Your task to perform on an android device: Look up the best rated 5.1 home theater speakers on Walmart. Image 0: 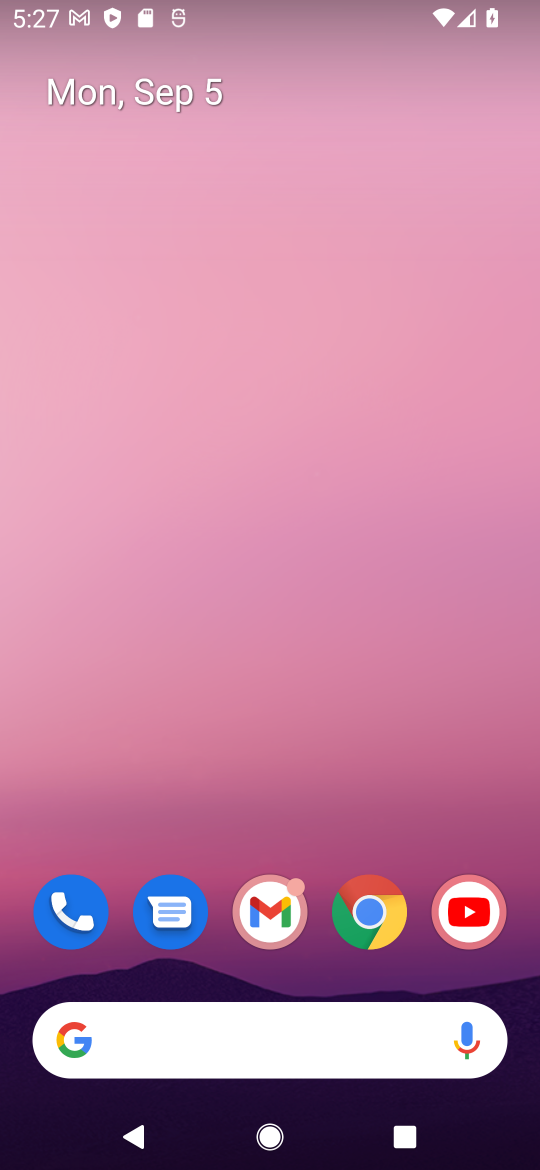
Step 0: click (358, 917)
Your task to perform on an android device: Look up the best rated 5.1 home theater speakers on Walmart. Image 1: 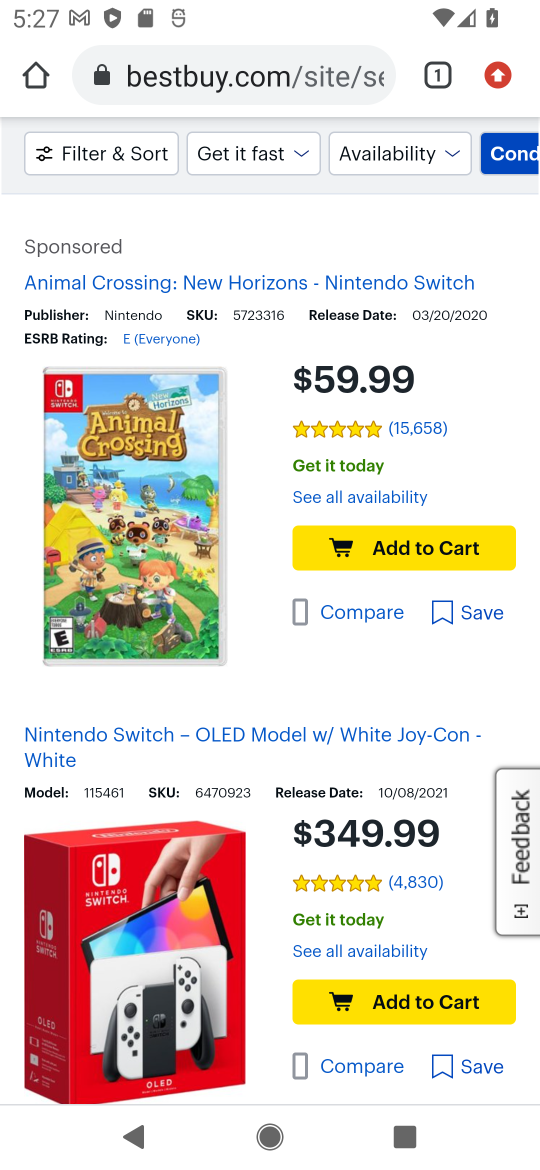
Step 1: click (243, 73)
Your task to perform on an android device: Look up the best rated 5.1 home theater speakers on Walmart. Image 2: 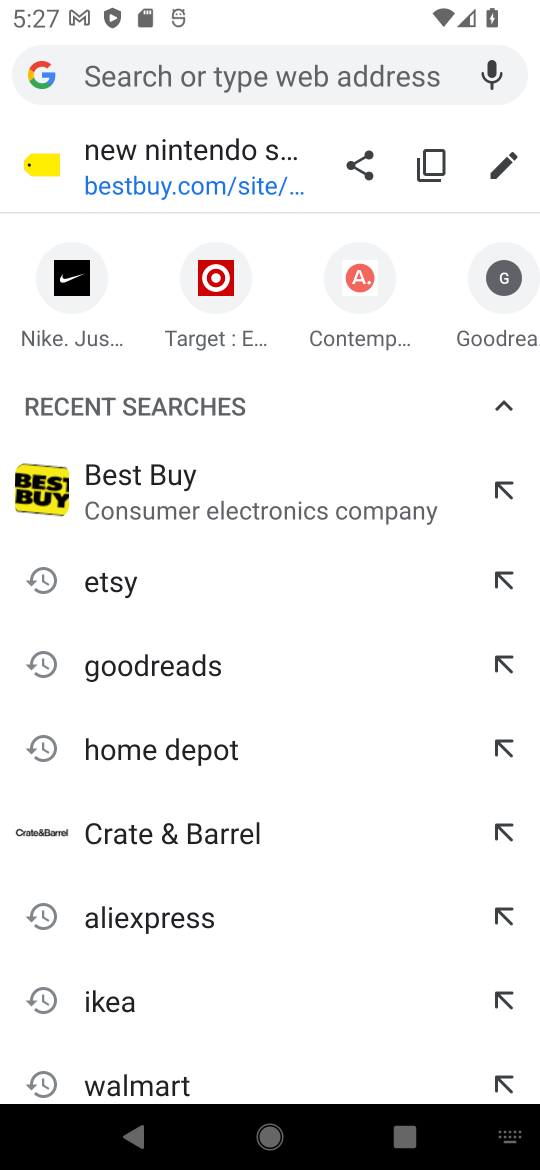
Step 2: type "walmart"
Your task to perform on an android device: Look up the best rated 5.1 home theater speakers on Walmart. Image 3: 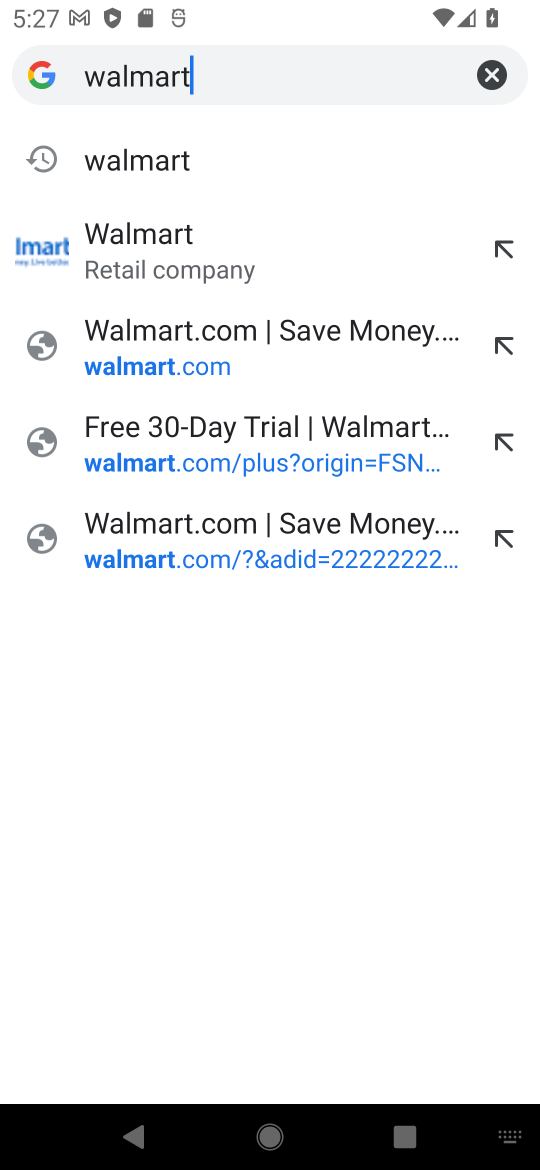
Step 3: press enter
Your task to perform on an android device: Look up the best rated 5.1 home theater speakers on Walmart. Image 4: 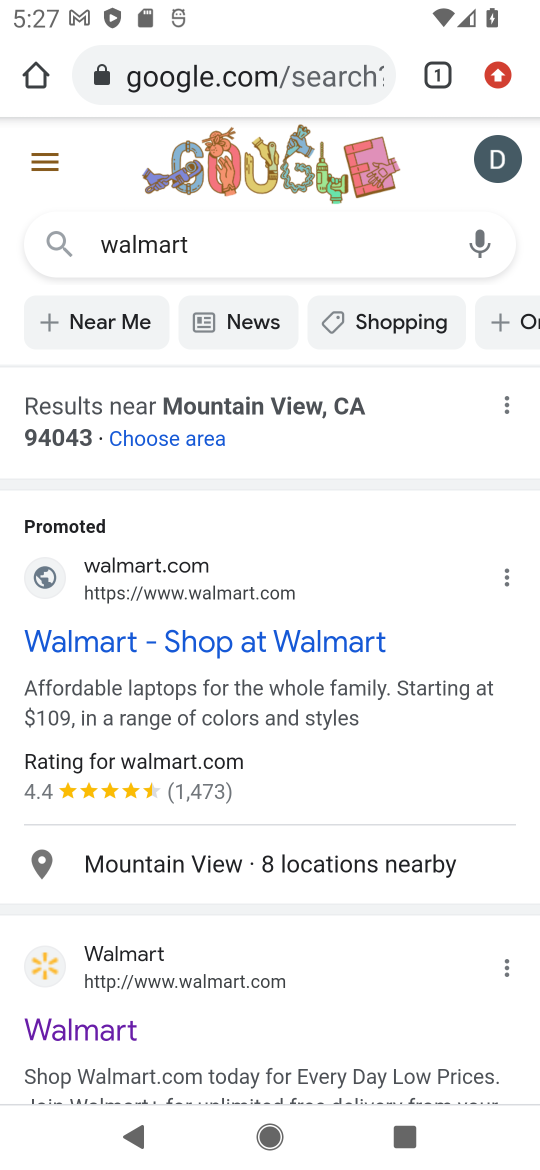
Step 4: click (146, 646)
Your task to perform on an android device: Look up the best rated 5.1 home theater speakers on Walmart. Image 5: 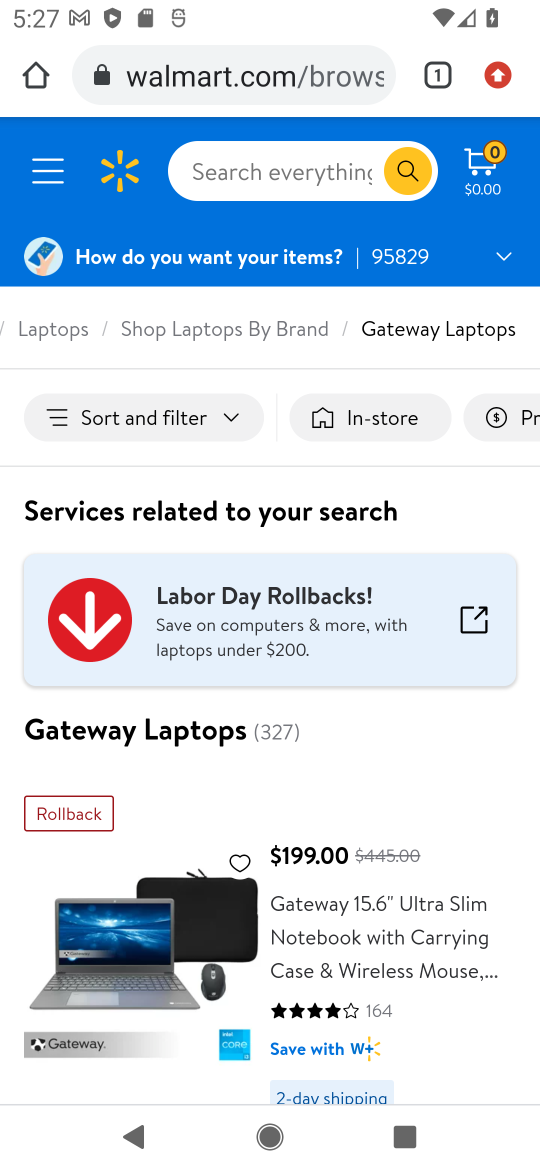
Step 5: click (283, 166)
Your task to perform on an android device: Look up the best rated 5.1 home theater speakers on Walmart. Image 6: 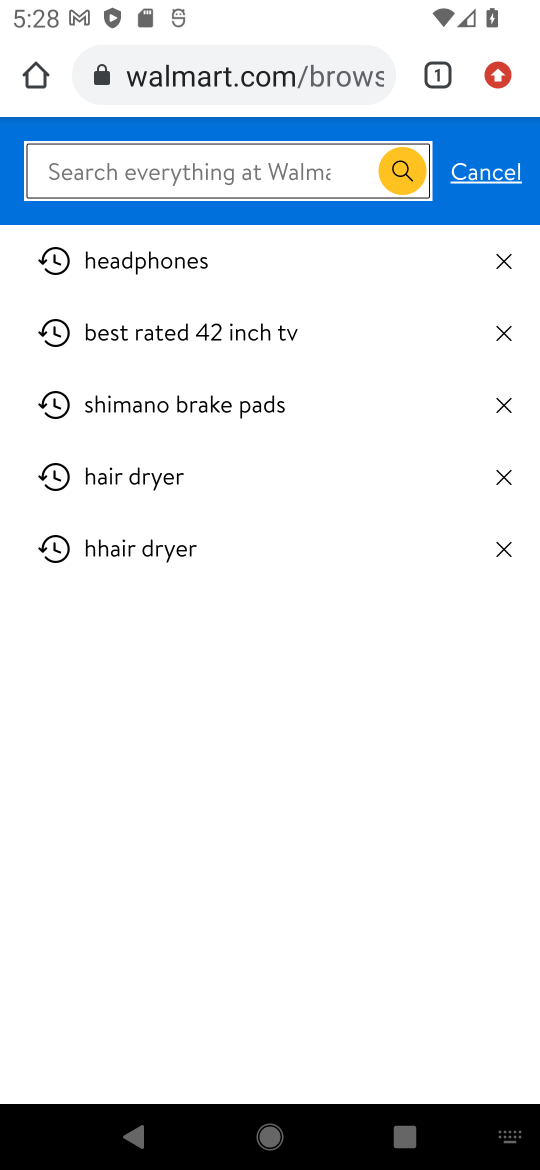
Step 6: click (197, 166)
Your task to perform on an android device: Look up the best rated 5.1 home theater speakers on Walmart. Image 7: 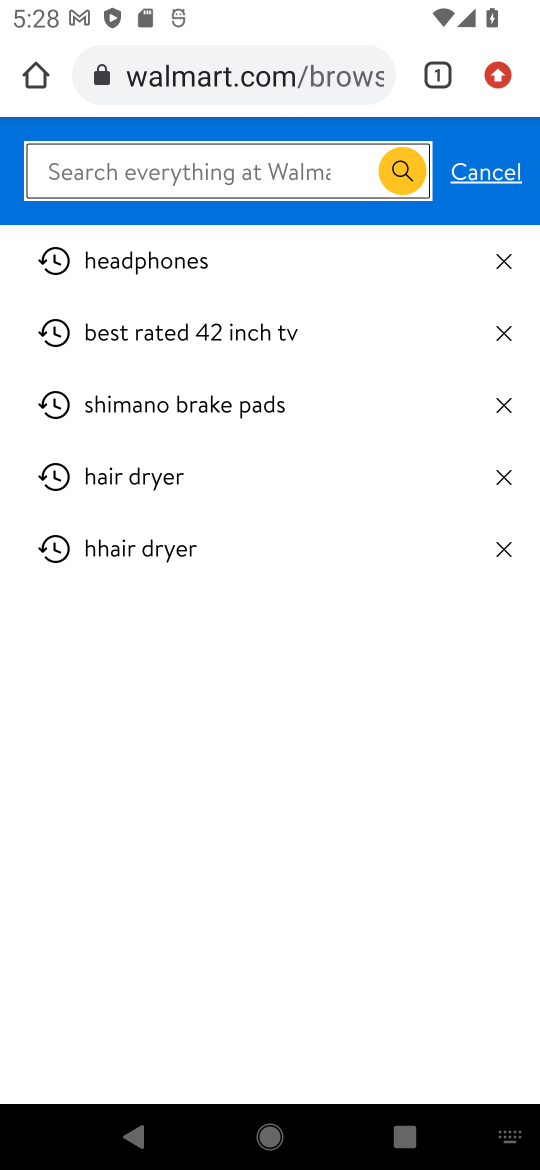
Step 7: type "best rated 5.1 home theater speakers"
Your task to perform on an android device: Look up the best rated 5.1 home theater speakers on Walmart. Image 8: 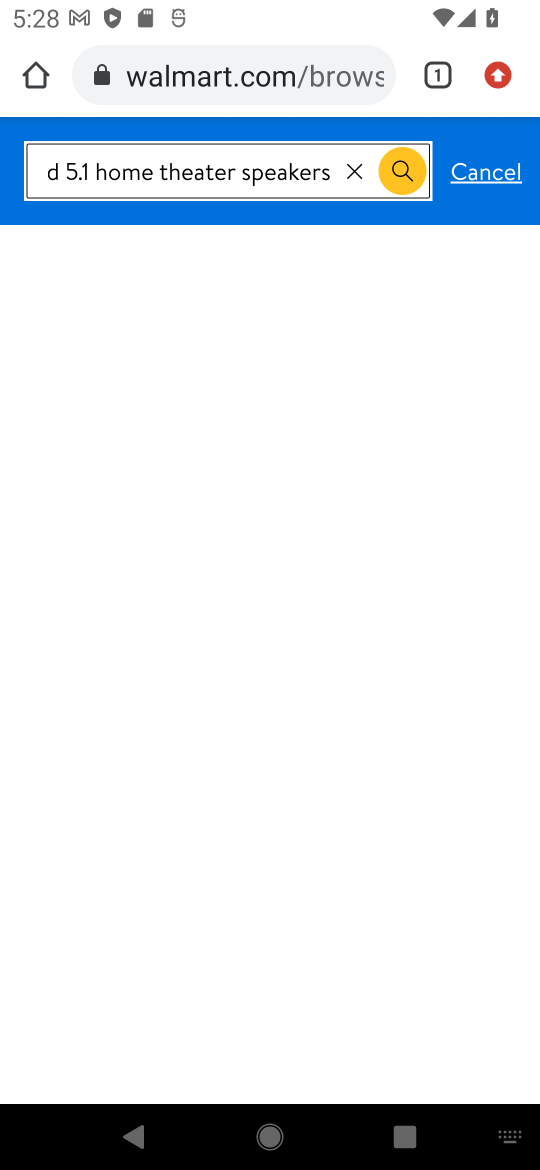
Step 8: press enter
Your task to perform on an android device: Look up the best rated 5.1 home theater speakers on Walmart. Image 9: 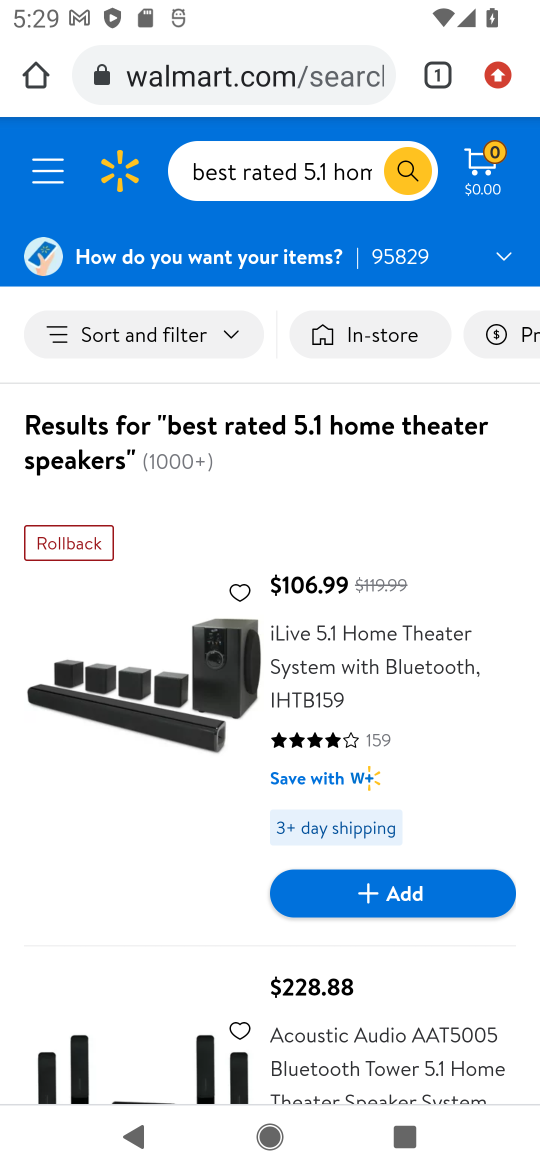
Step 9: click (134, 341)
Your task to perform on an android device: Look up the best rated 5.1 home theater speakers on Walmart. Image 10: 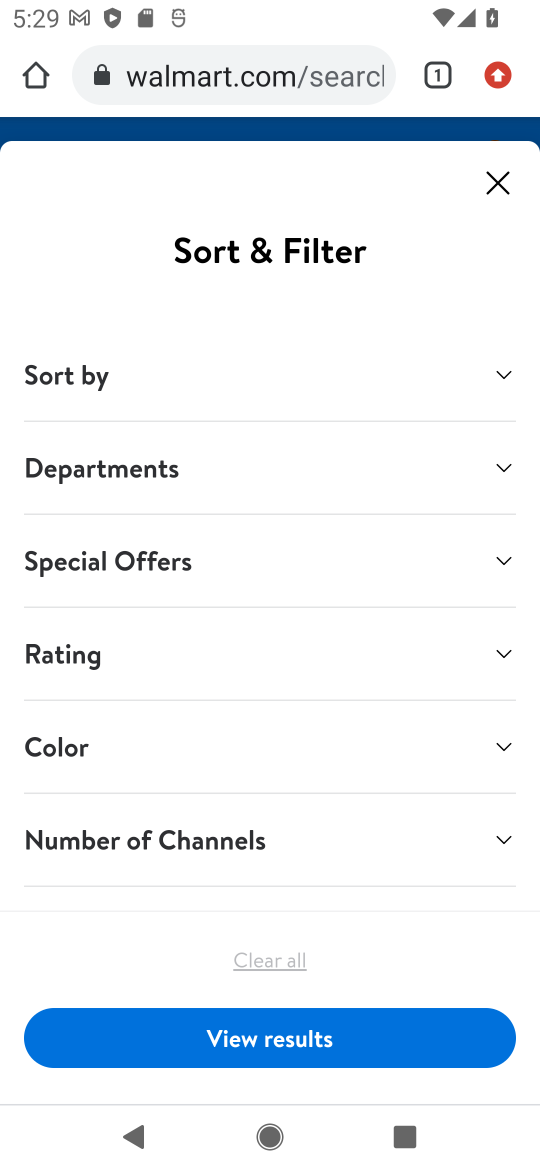
Step 10: click (248, 665)
Your task to perform on an android device: Look up the best rated 5.1 home theater speakers on Walmart. Image 11: 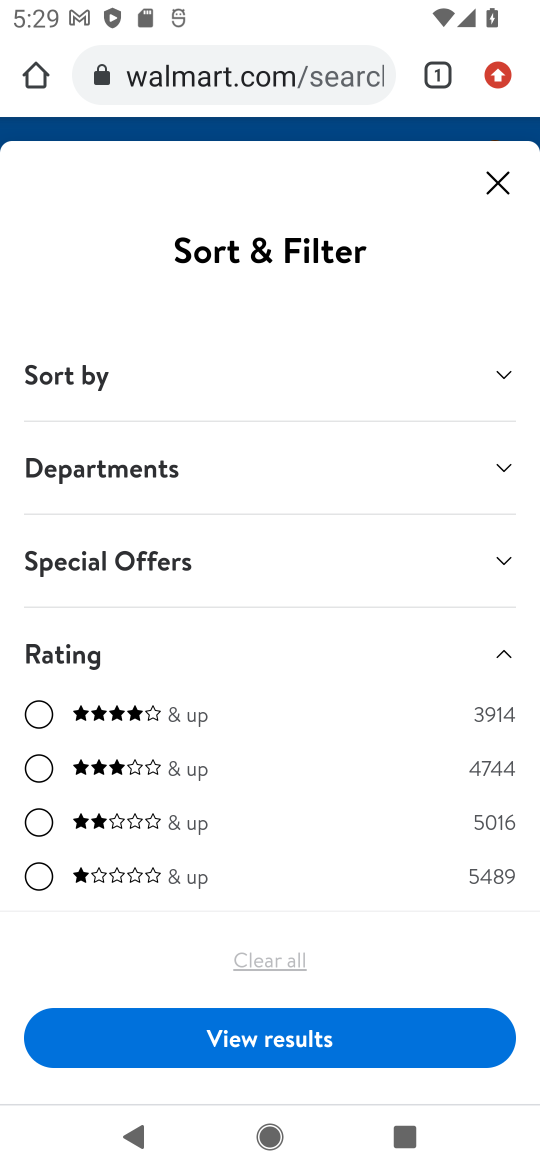
Step 11: click (32, 719)
Your task to perform on an android device: Look up the best rated 5.1 home theater speakers on Walmart. Image 12: 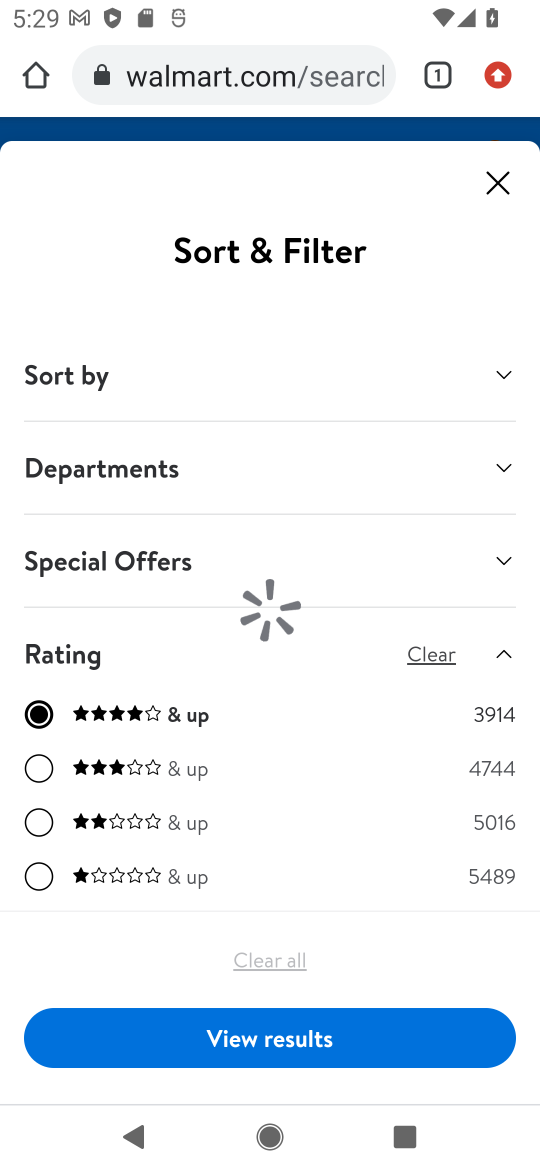
Step 12: click (309, 1058)
Your task to perform on an android device: Look up the best rated 5.1 home theater speakers on Walmart. Image 13: 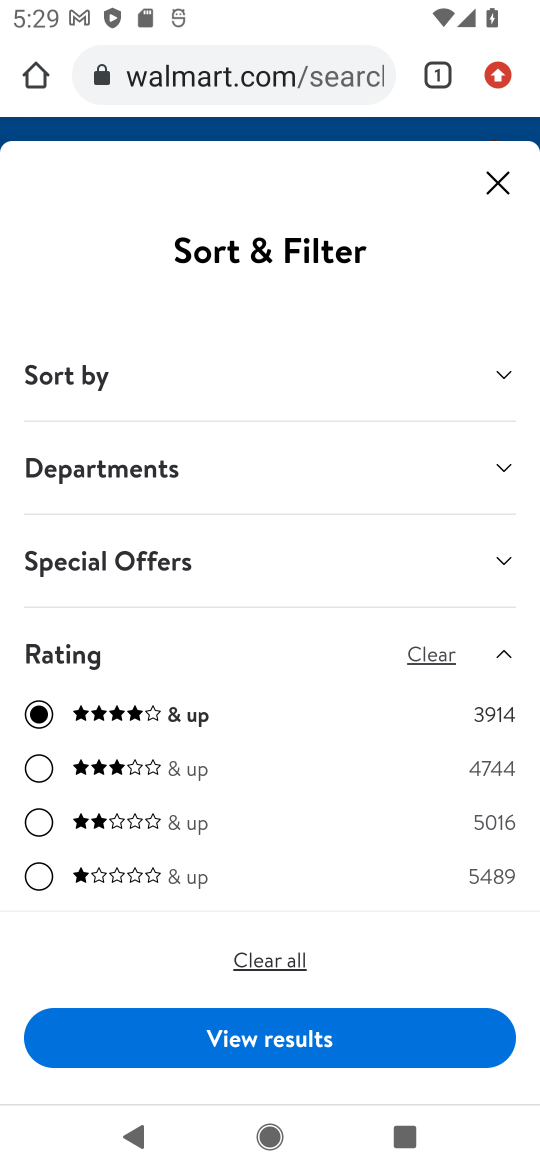
Step 13: click (346, 1030)
Your task to perform on an android device: Look up the best rated 5.1 home theater speakers on Walmart. Image 14: 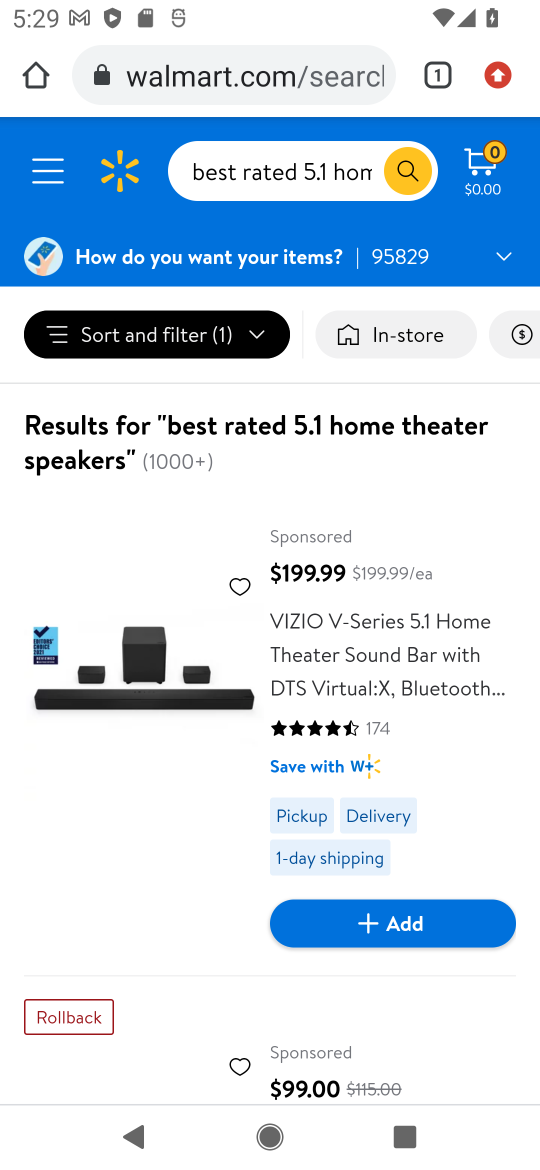
Step 14: task complete